Your task to perform on an android device: Open privacy settings Image 0: 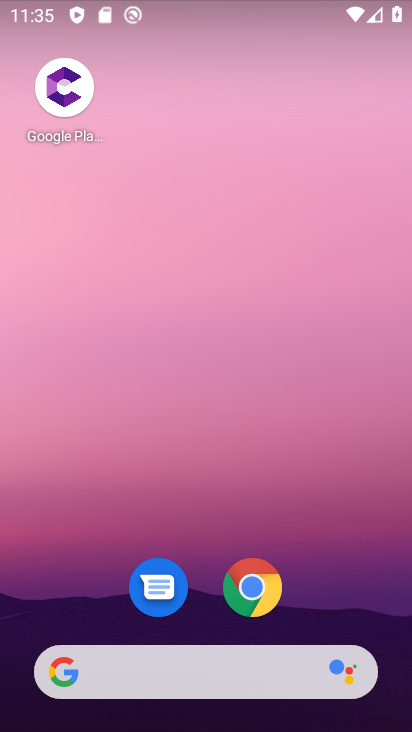
Step 0: drag from (311, 611) to (285, 131)
Your task to perform on an android device: Open privacy settings Image 1: 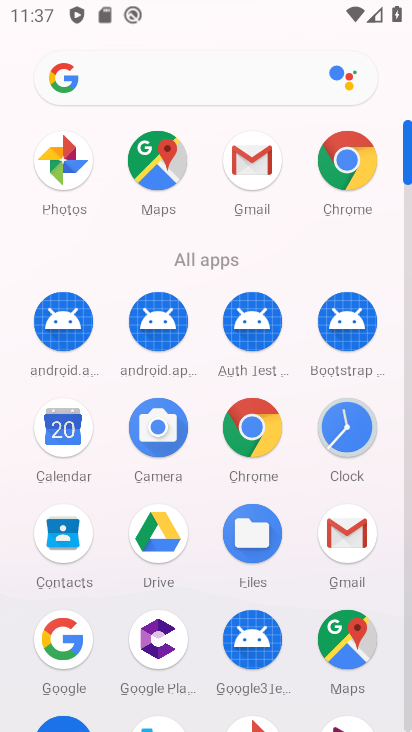
Step 1: click (407, 507)
Your task to perform on an android device: Open privacy settings Image 2: 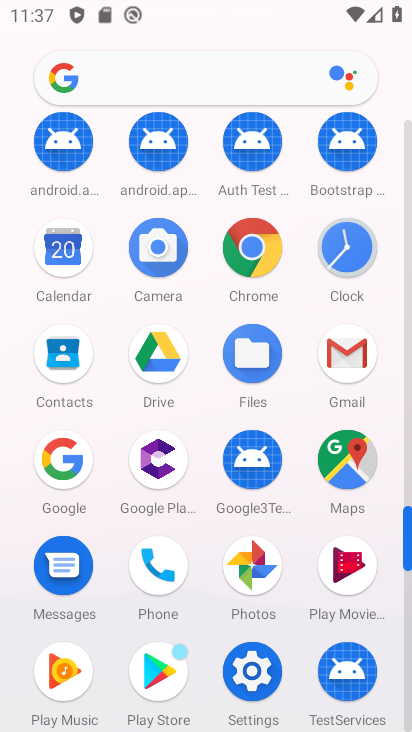
Step 2: click (244, 713)
Your task to perform on an android device: Open privacy settings Image 3: 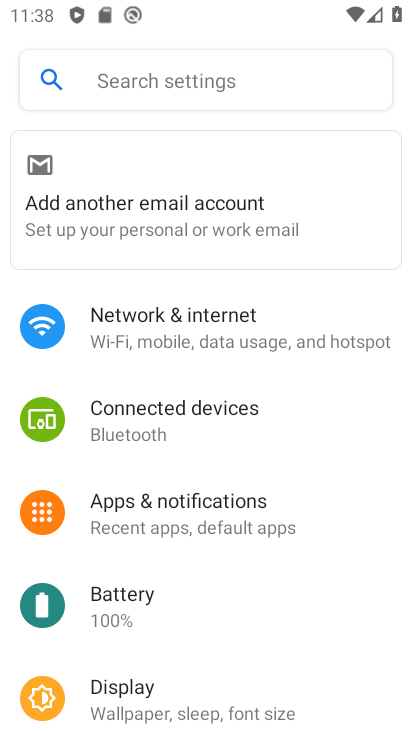
Step 3: drag from (253, 608) to (226, 226)
Your task to perform on an android device: Open privacy settings Image 4: 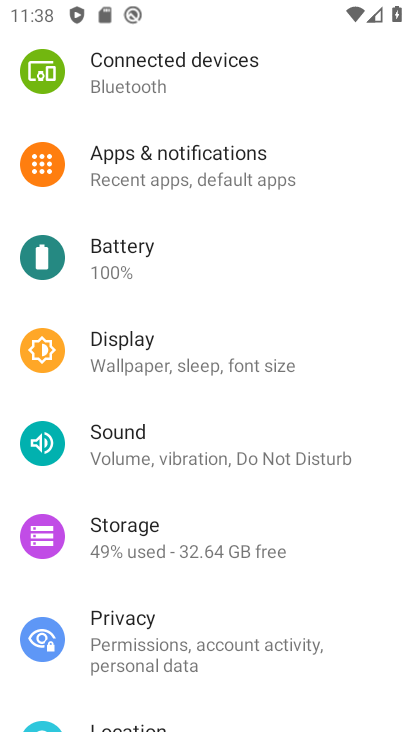
Step 4: click (222, 630)
Your task to perform on an android device: Open privacy settings Image 5: 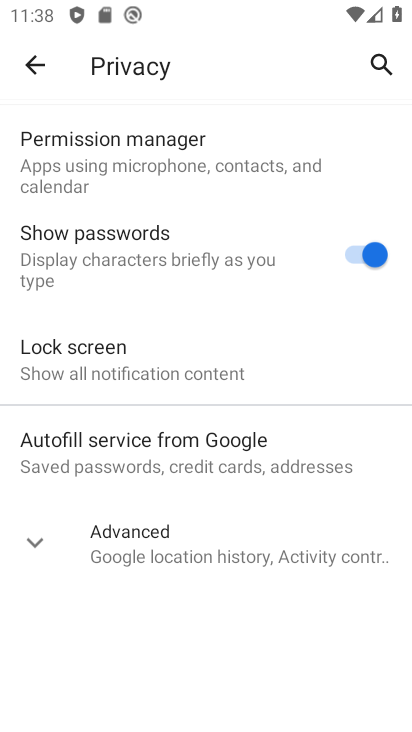
Step 5: task complete